Your task to perform on an android device: Open Google Maps and go to "Timeline" Image 0: 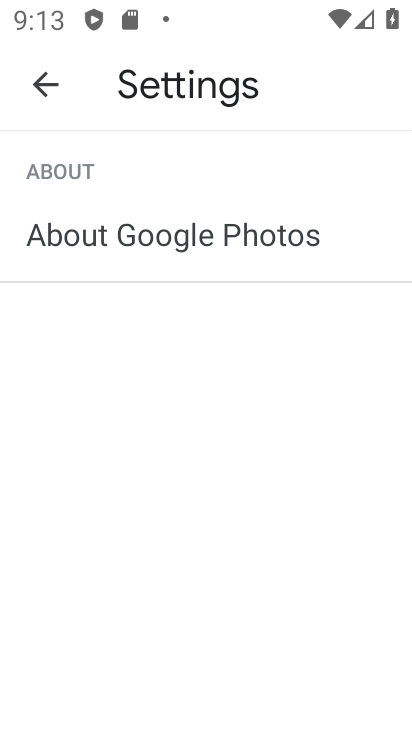
Step 0: press home button
Your task to perform on an android device: Open Google Maps and go to "Timeline" Image 1: 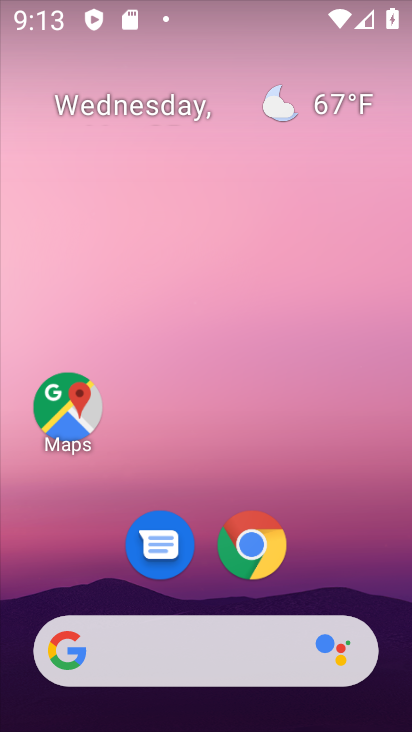
Step 1: click (79, 415)
Your task to perform on an android device: Open Google Maps and go to "Timeline" Image 2: 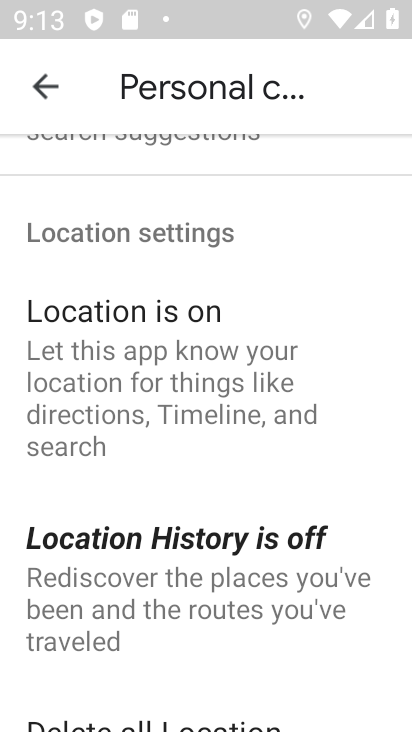
Step 2: click (53, 82)
Your task to perform on an android device: Open Google Maps and go to "Timeline" Image 3: 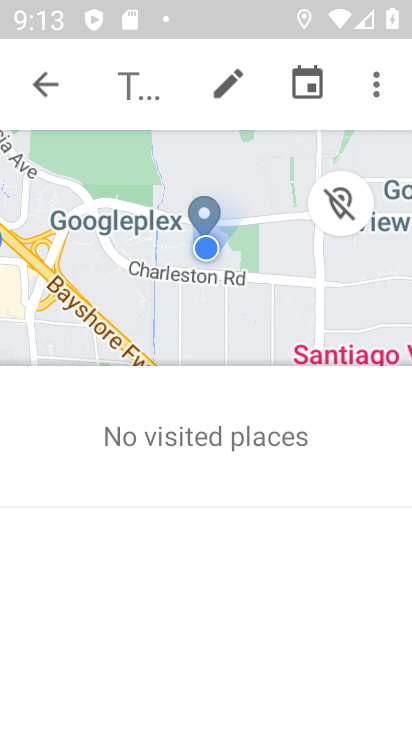
Step 3: click (53, 82)
Your task to perform on an android device: Open Google Maps and go to "Timeline" Image 4: 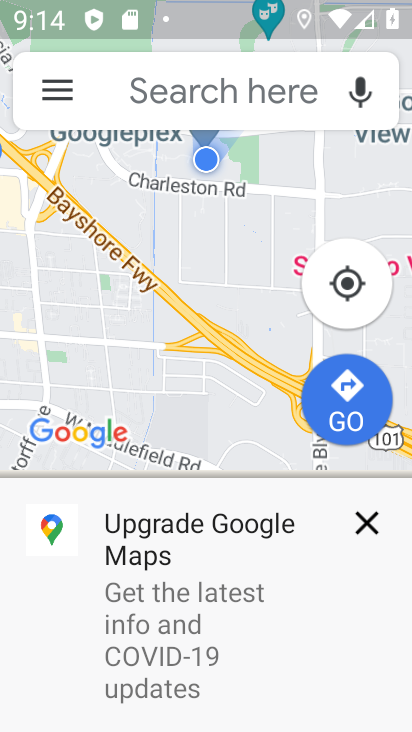
Step 4: click (374, 530)
Your task to perform on an android device: Open Google Maps and go to "Timeline" Image 5: 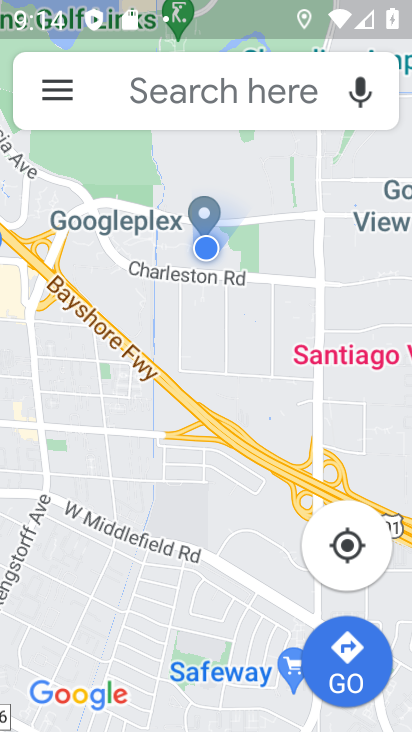
Step 5: click (46, 99)
Your task to perform on an android device: Open Google Maps and go to "Timeline" Image 6: 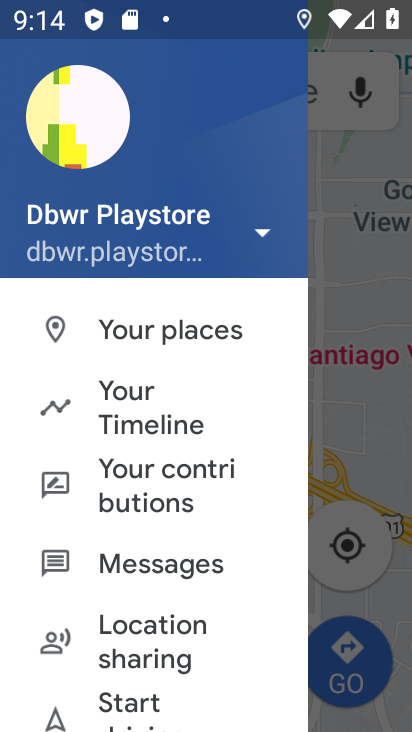
Step 6: click (178, 403)
Your task to perform on an android device: Open Google Maps and go to "Timeline" Image 7: 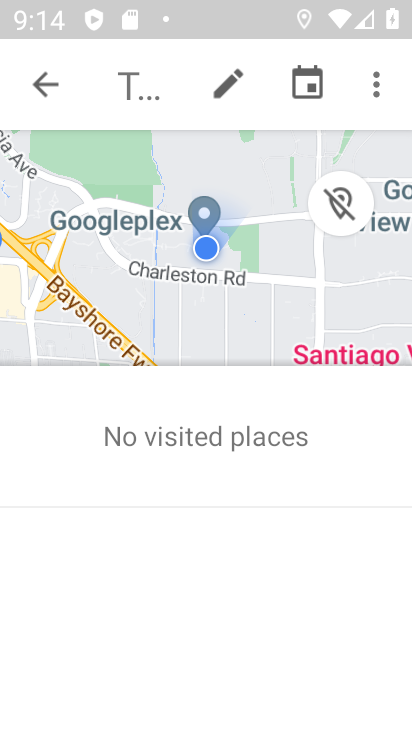
Step 7: task complete